Your task to perform on an android device: open a bookmark in the chrome app Image 0: 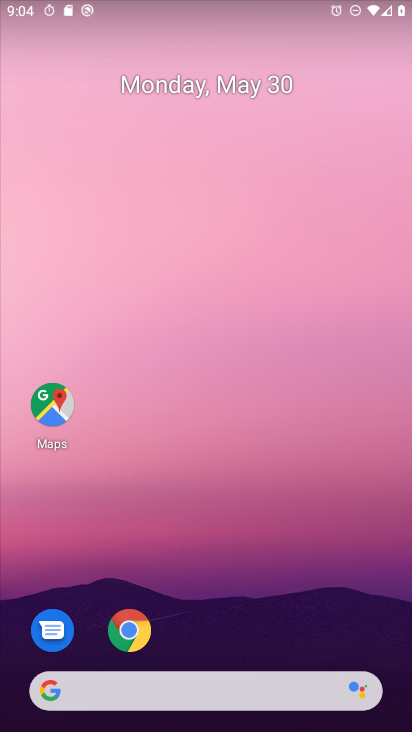
Step 0: drag from (377, 630) to (189, 53)
Your task to perform on an android device: open a bookmark in the chrome app Image 1: 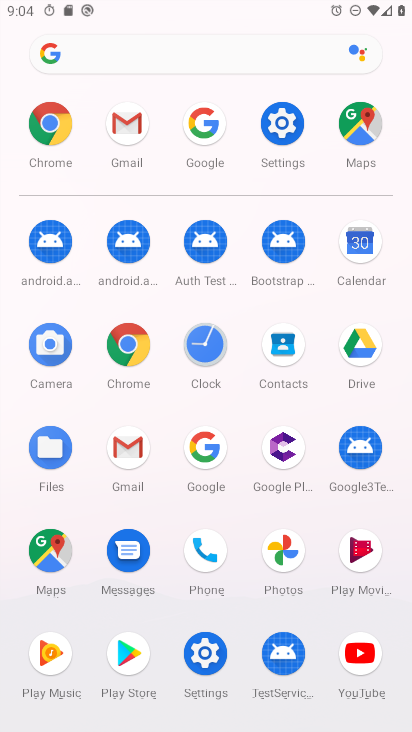
Step 1: click (49, 126)
Your task to perform on an android device: open a bookmark in the chrome app Image 2: 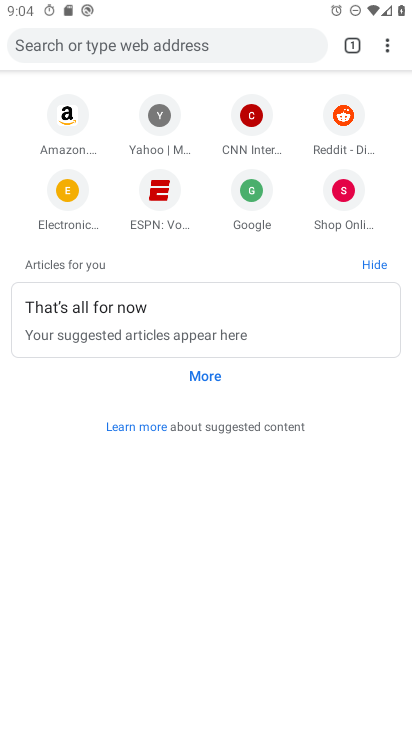
Step 2: click (379, 35)
Your task to perform on an android device: open a bookmark in the chrome app Image 3: 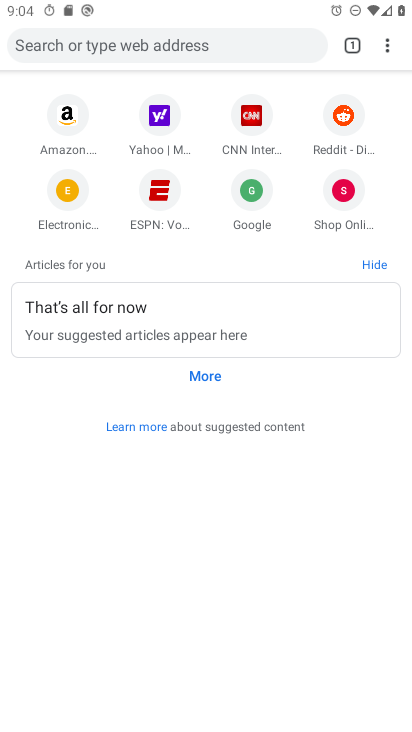
Step 3: click (388, 42)
Your task to perform on an android device: open a bookmark in the chrome app Image 4: 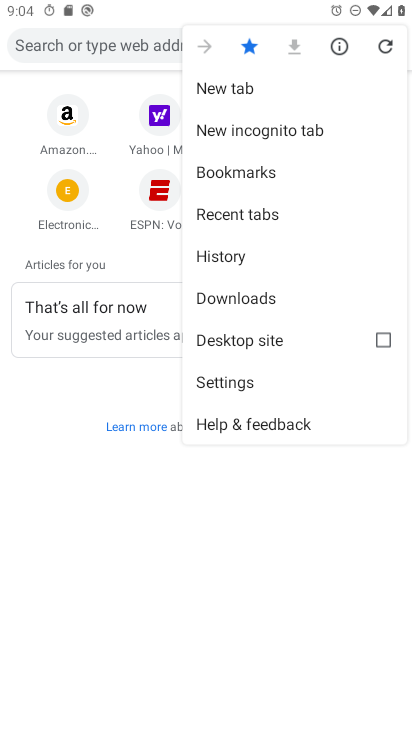
Step 4: click (262, 171)
Your task to perform on an android device: open a bookmark in the chrome app Image 5: 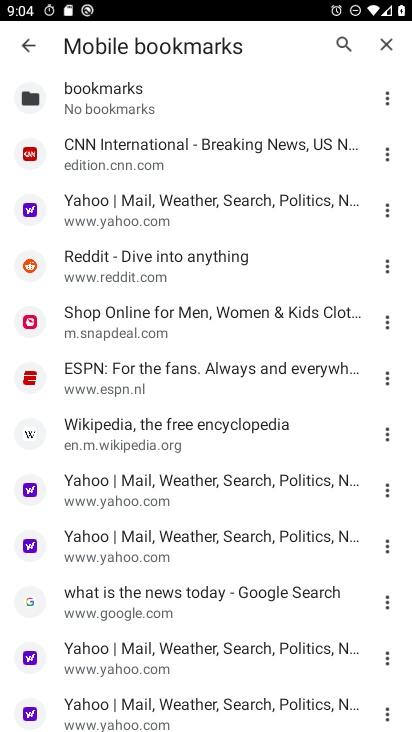
Step 5: task complete